Your task to perform on an android device: change timer sound Image 0: 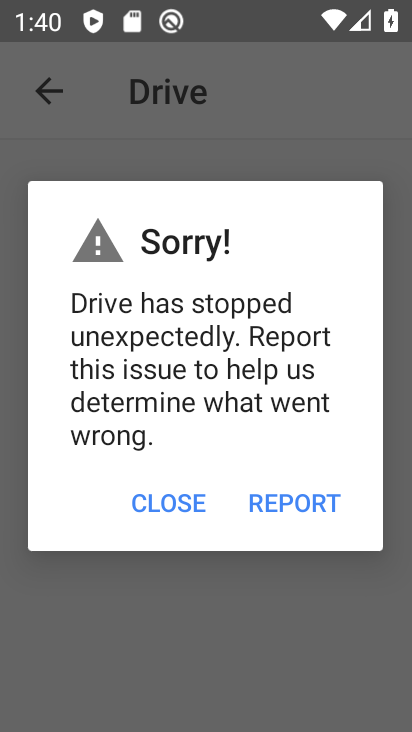
Step 0: click (84, 402)
Your task to perform on an android device: change timer sound Image 1: 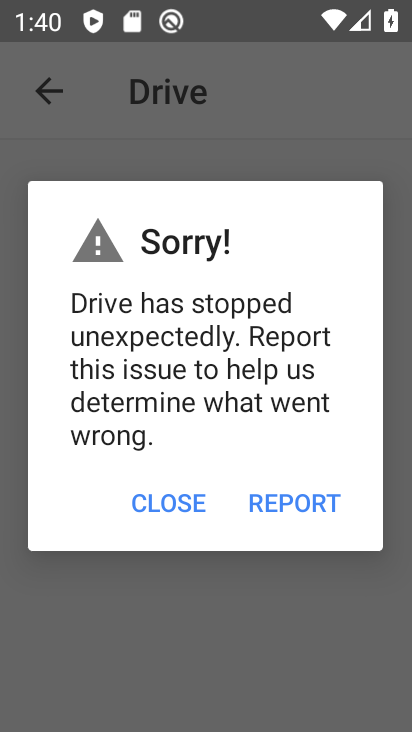
Step 1: press home button
Your task to perform on an android device: change timer sound Image 2: 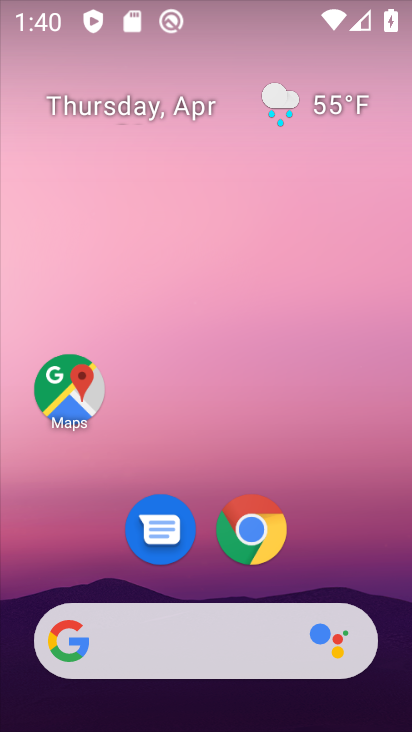
Step 2: drag from (302, 578) to (277, 159)
Your task to perform on an android device: change timer sound Image 3: 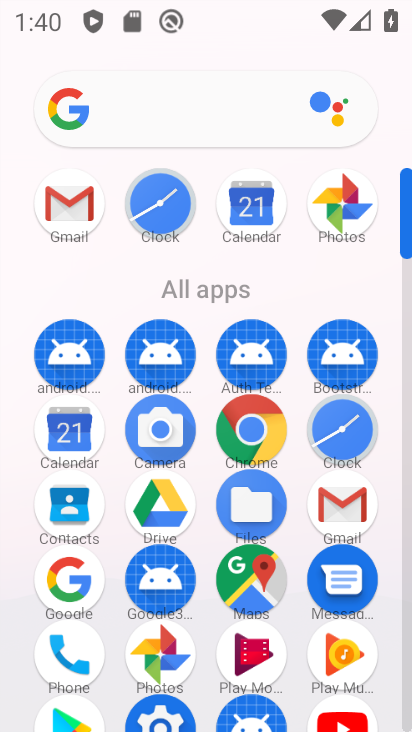
Step 3: click (347, 438)
Your task to perform on an android device: change timer sound Image 4: 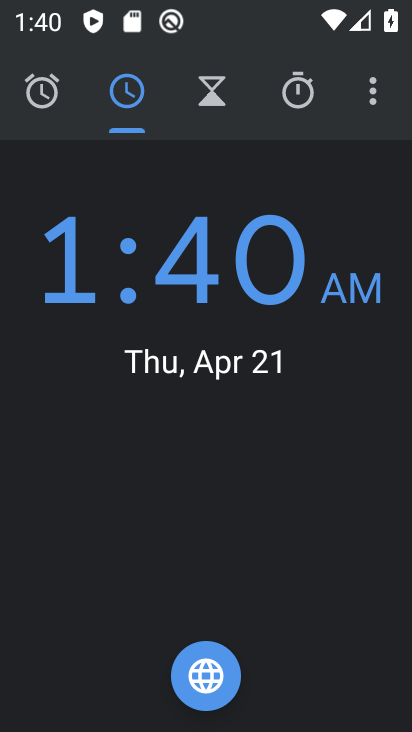
Step 4: click (371, 102)
Your task to perform on an android device: change timer sound Image 5: 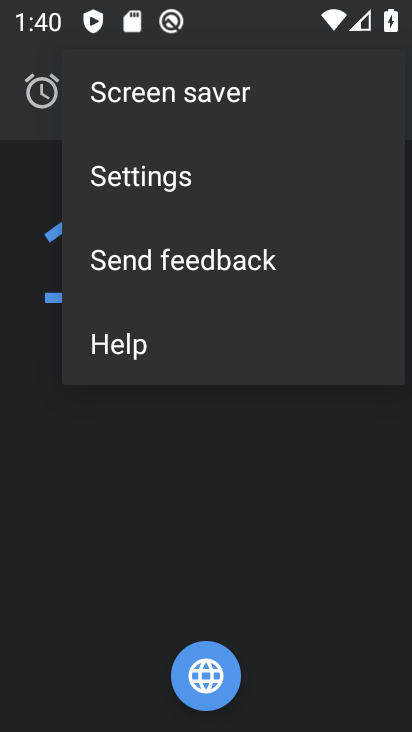
Step 5: click (236, 180)
Your task to perform on an android device: change timer sound Image 6: 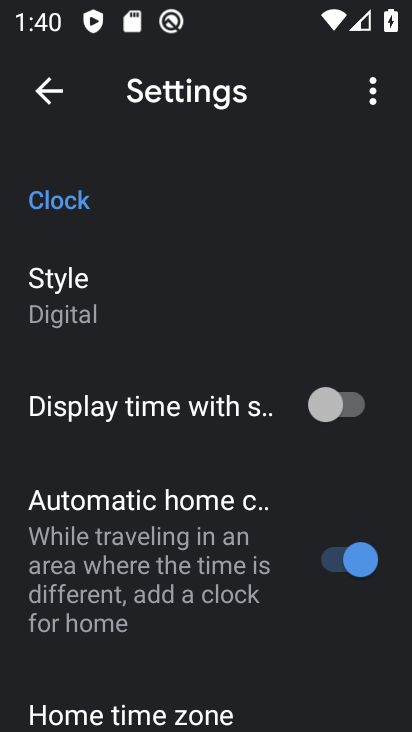
Step 6: drag from (213, 511) to (208, 218)
Your task to perform on an android device: change timer sound Image 7: 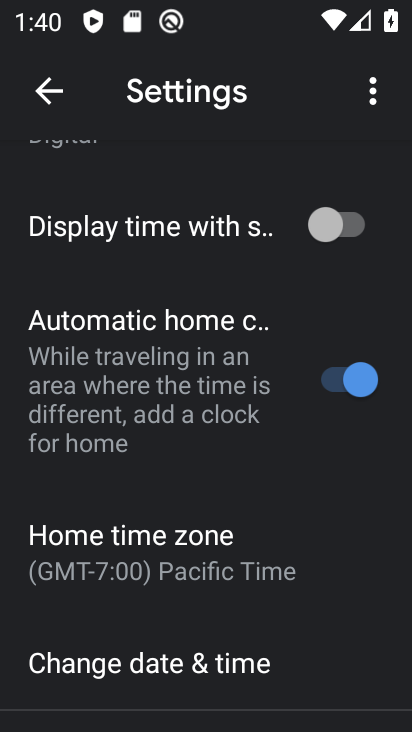
Step 7: drag from (188, 489) to (202, 245)
Your task to perform on an android device: change timer sound Image 8: 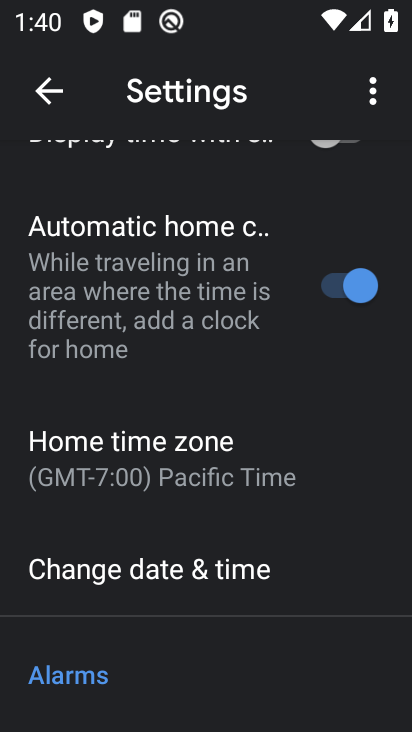
Step 8: drag from (152, 647) to (179, 328)
Your task to perform on an android device: change timer sound Image 9: 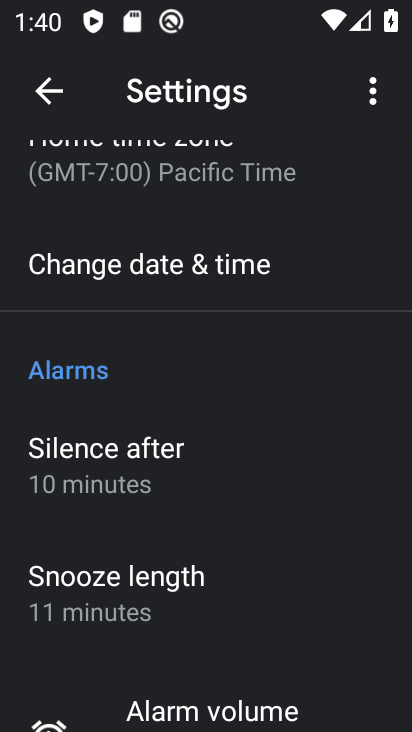
Step 9: drag from (188, 618) to (194, 273)
Your task to perform on an android device: change timer sound Image 10: 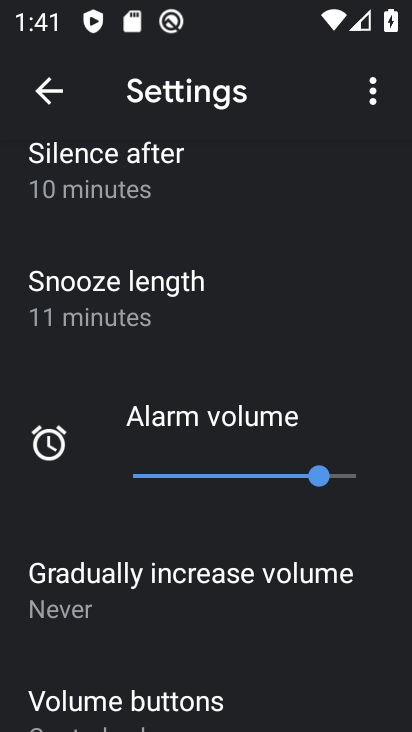
Step 10: drag from (165, 582) to (187, 287)
Your task to perform on an android device: change timer sound Image 11: 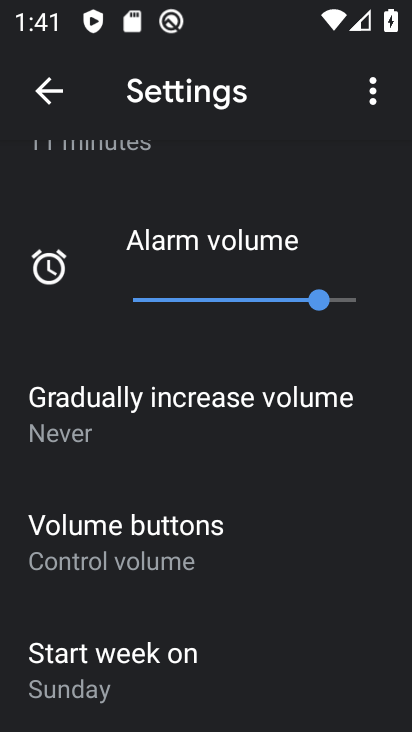
Step 11: drag from (191, 636) to (175, 274)
Your task to perform on an android device: change timer sound Image 12: 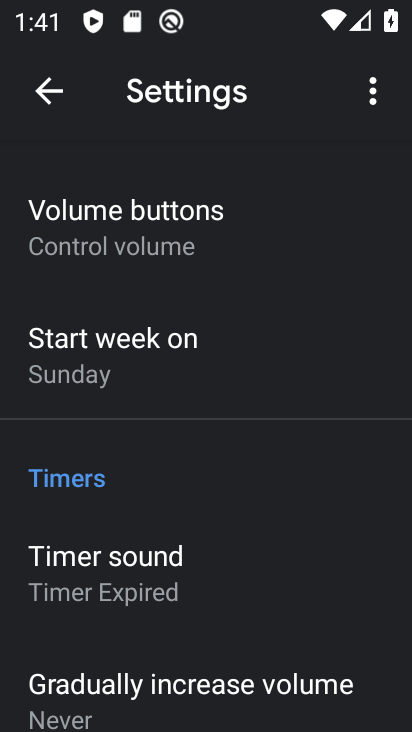
Step 12: click (191, 583)
Your task to perform on an android device: change timer sound Image 13: 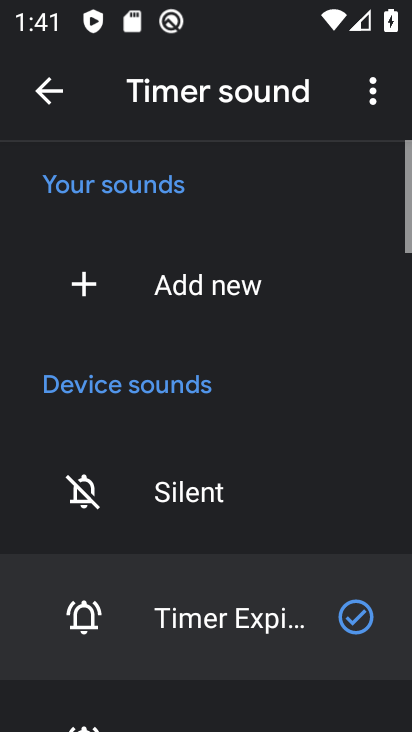
Step 13: click (220, 506)
Your task to perform on an android device: change timer sound Image 14: 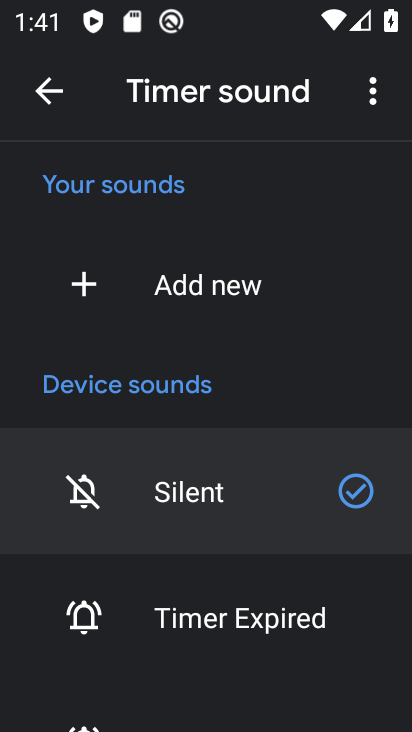
Step 14: task complete